Your task to perform on an android device: Clear the shopping cart on ebay.com. Add "razer blackwidow" to the cart on ebay.com, then select checkout. Image 0: 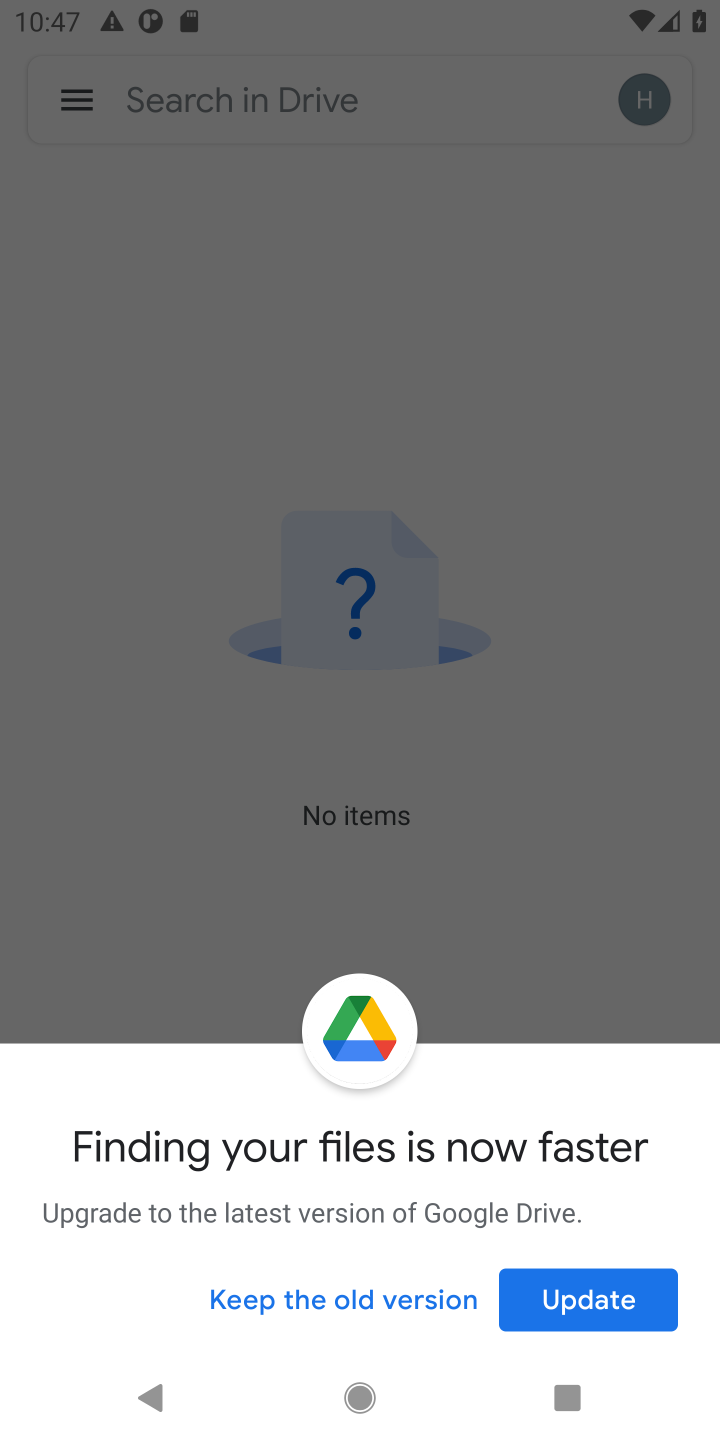
Step 0: press home button
Your task to perform on an android device: Clear the shopping cart on ebay.com. Add "razer blackwidow" to the cart on ebay.com, then select checkout. Image 1: 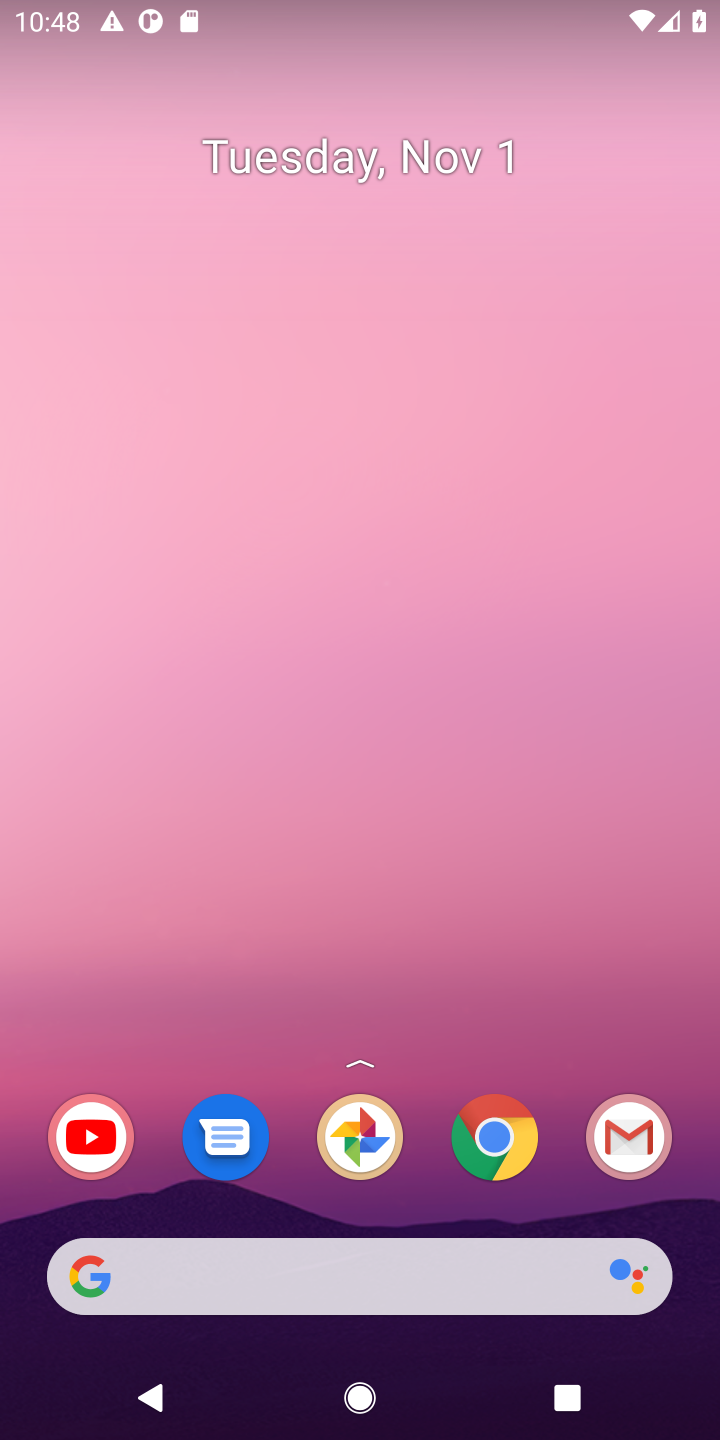
Step 1: click (338, 1287)
Your task to perform on an android device: Clear the shopping cart on ebay.com. Add "razer blackwidow" to the cart on ebay.com, then select checkout. Image 2: 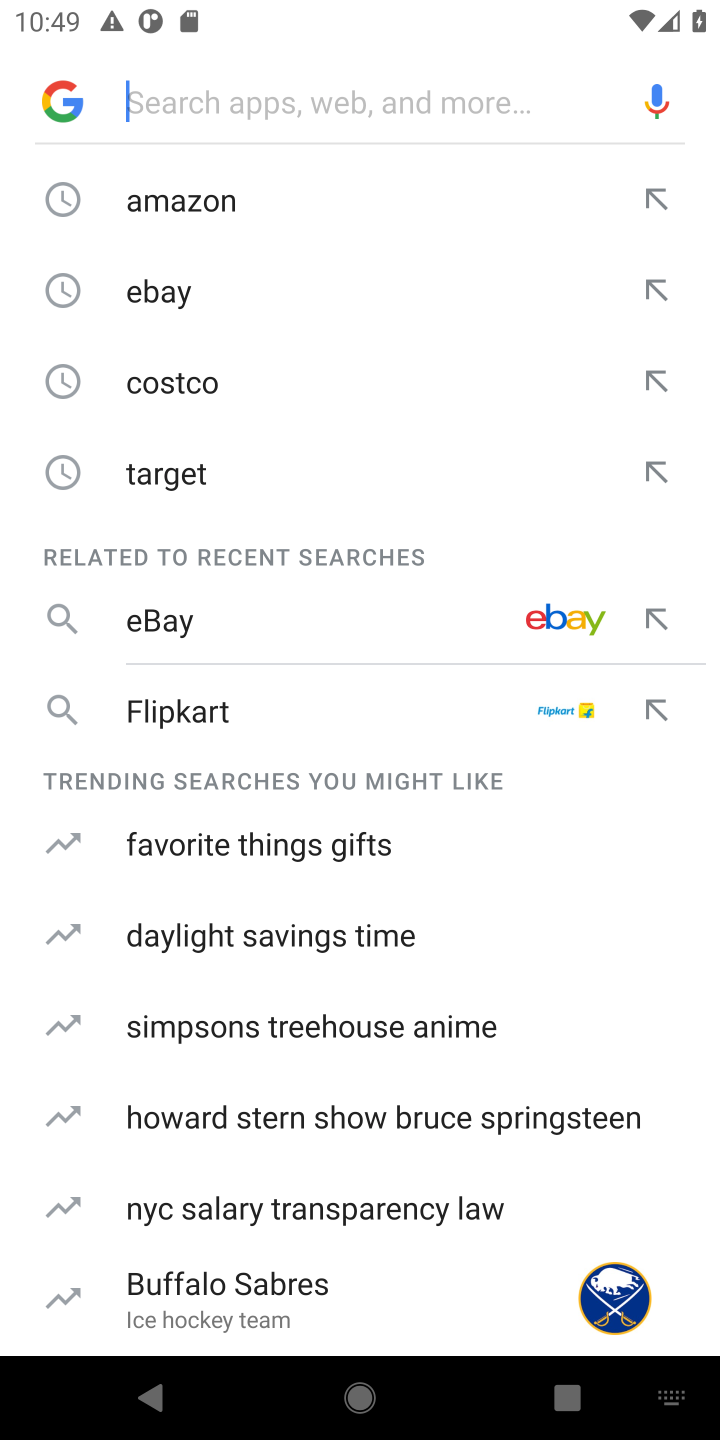
Step 2: click (251, 280)
Your task to perform on an android device: Clear the shopping cart on ebay.com. Add "razer blackwidow" to the cart on ebay.com, then select checkout. Image 3: 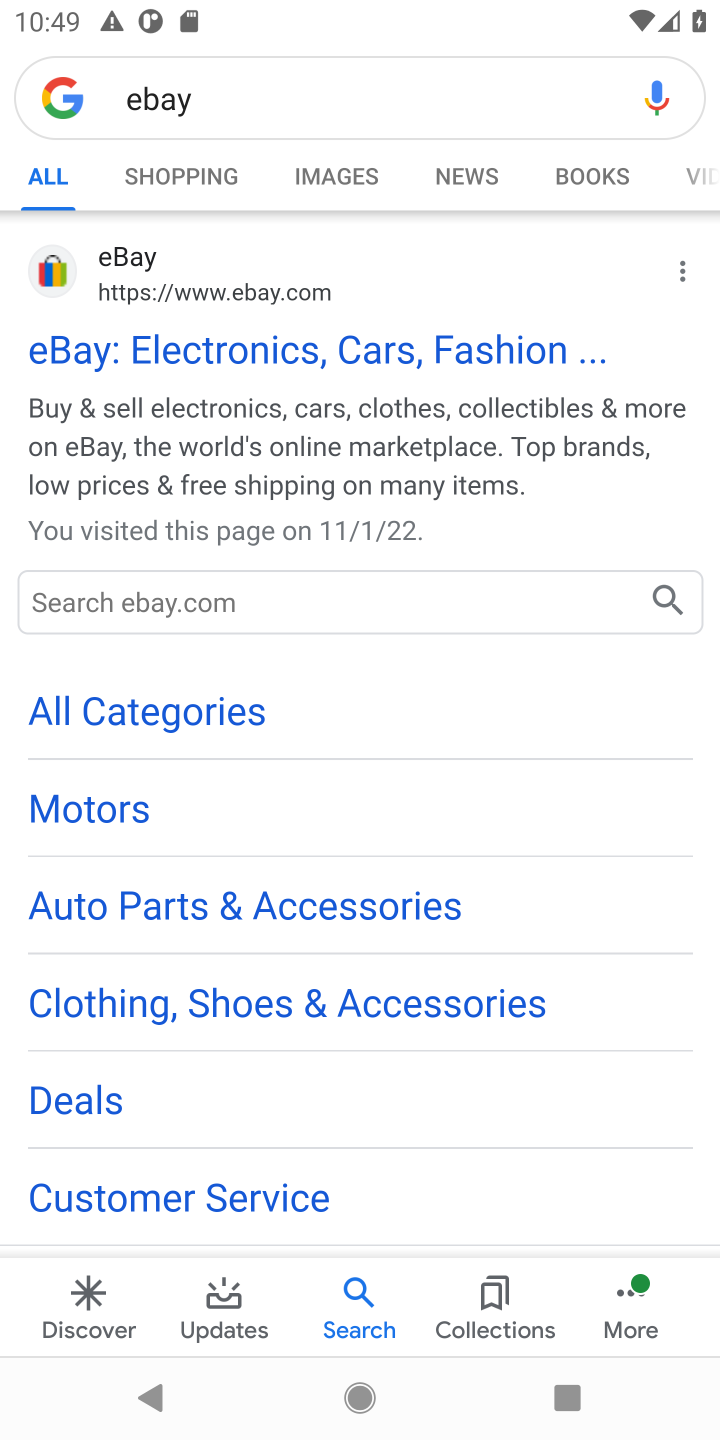
Step 3: click (152, 288)
Your task to perform on an android device: Clear the shopping cart on ebay.com. Add "razer blackwidow" to the cart on ebay.com, then select checkout. Image 4: 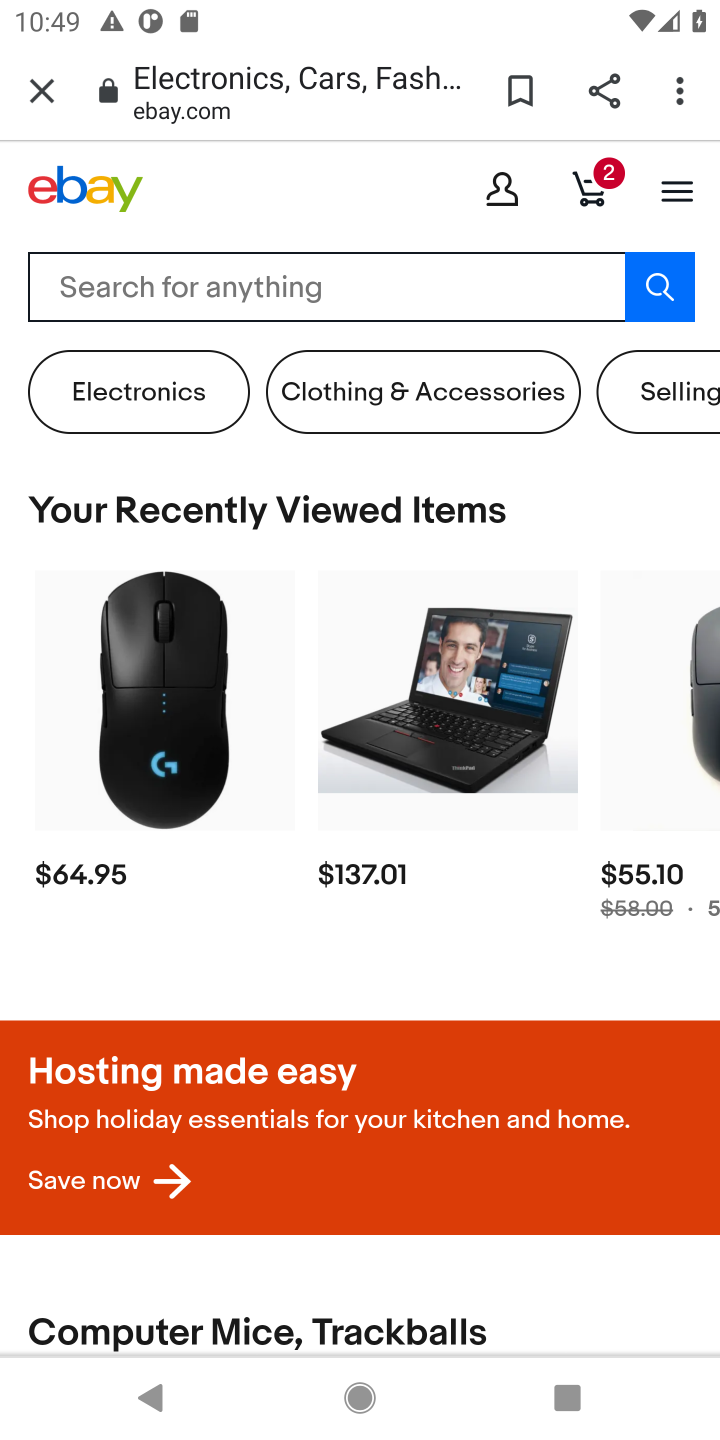
Step 4: click (274, 284)
Your task to perform on an android device: Clear the shopping cart on ebay.com. Add "razer blackwidow" to the cart on ebay.com, then select checkout. Image 5: 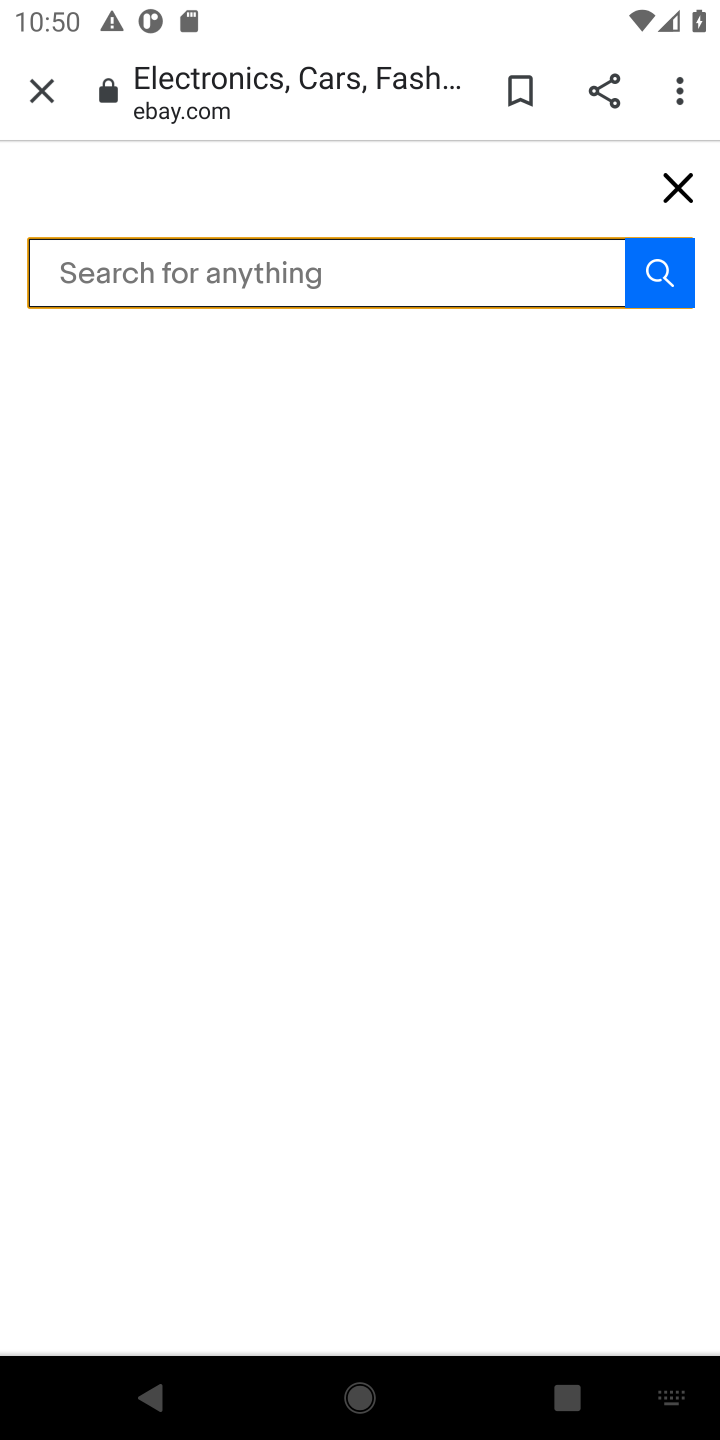
Step 5: type "razer blackwidow"
Your task to perform on an android device: Clear the shopping cart on ebay.com. Add "razer blackwidow" to the cart on ebay.com, then select checkout. Image 6: 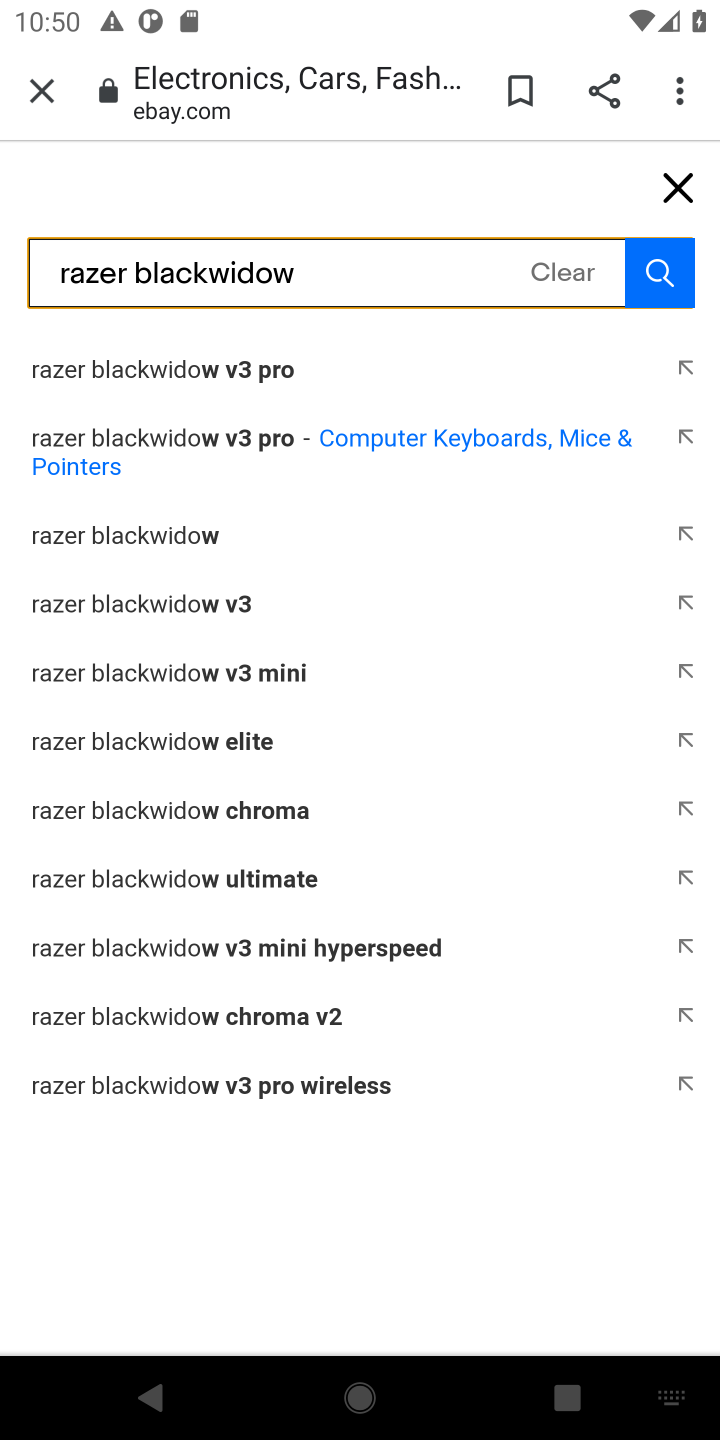
Step 6: type "razer blackwidow"
Your task to perform on an android device: Clear the shopping cart on ebay.com. Add "razer blackwidow" to the cart on ebay.com, then select checkout. Image 7: 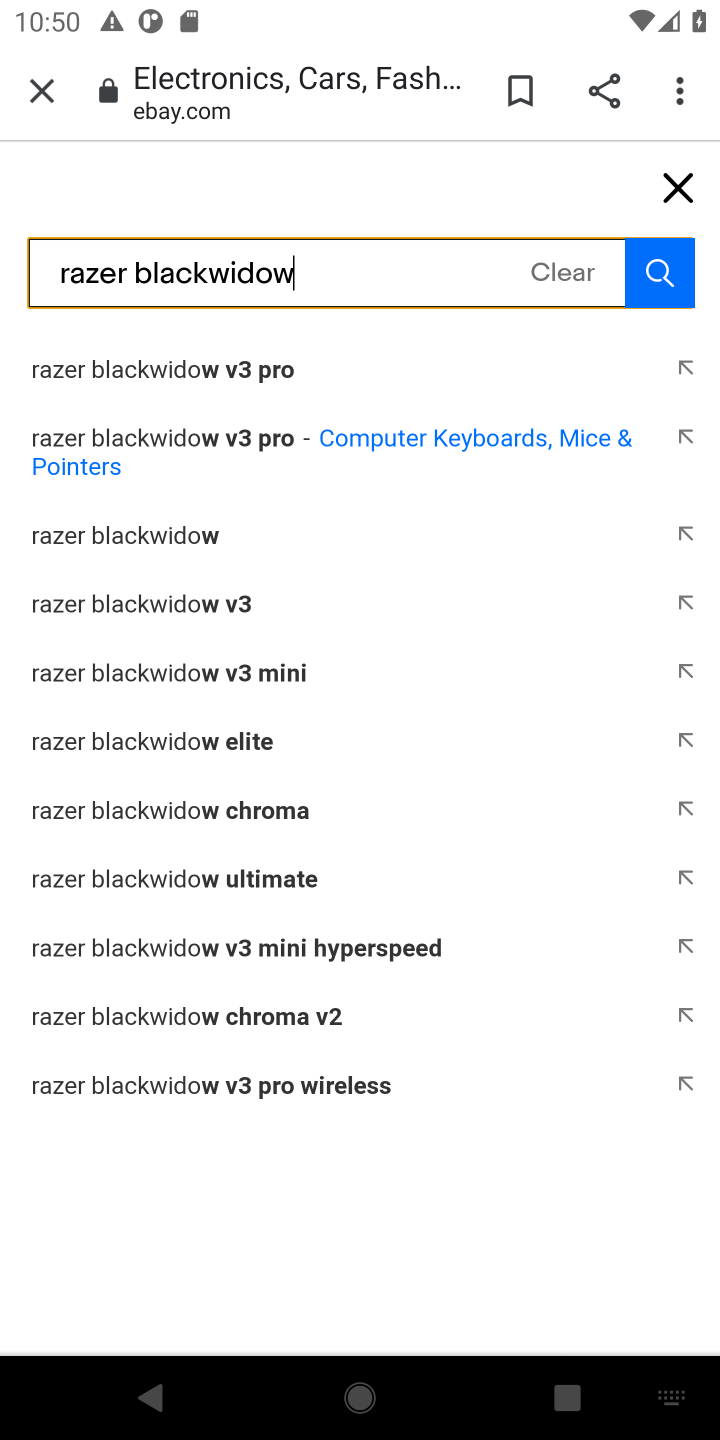
Step 7: click (86, 539)
Your task to perform on an android device: Clear the shopping cart on ebay.com. Add "razer blackwidow" to the cart on ebay.com, then select checkout. Image 8: 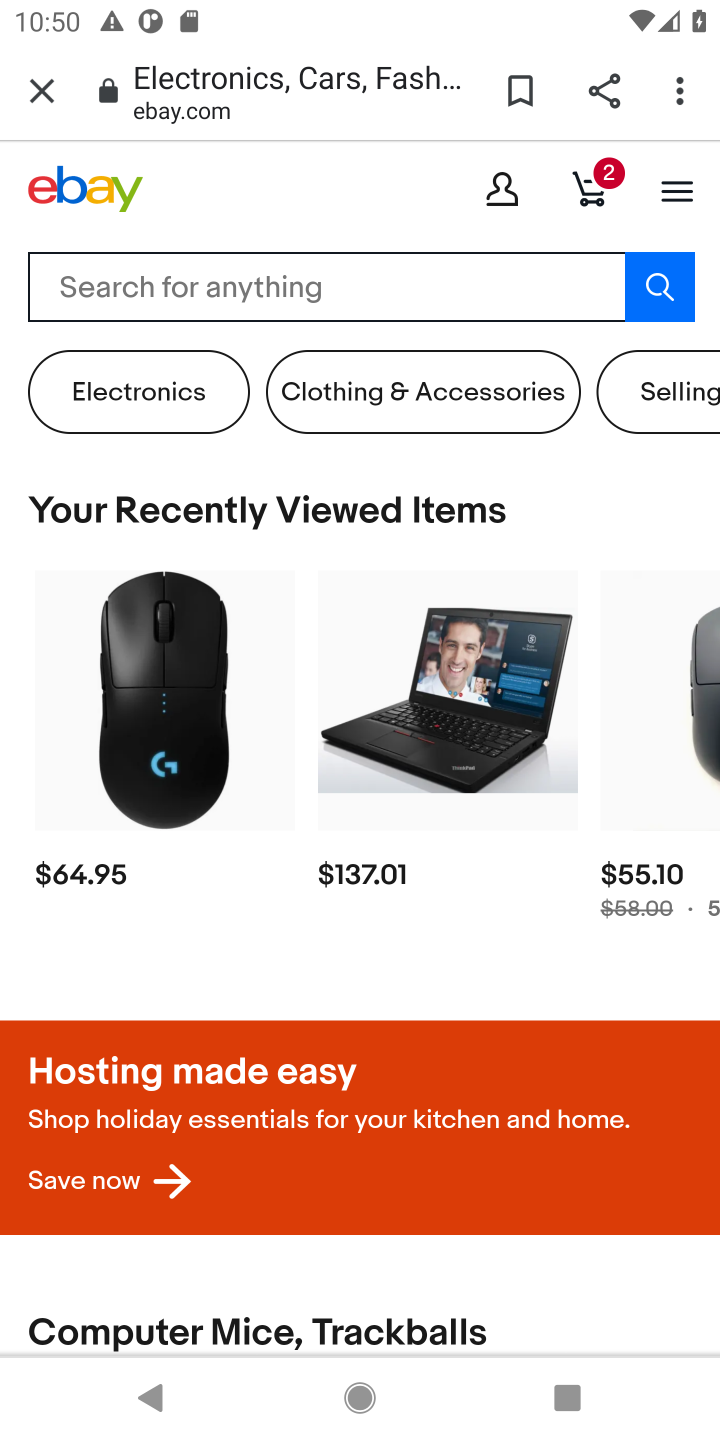
Step 8: click (86, 539)
Your task to perform on an android device: Clear the shopping cart on ebay.com. Add "razer blackwidow" to the cart on ebay.com, then select checkout. Image 9: 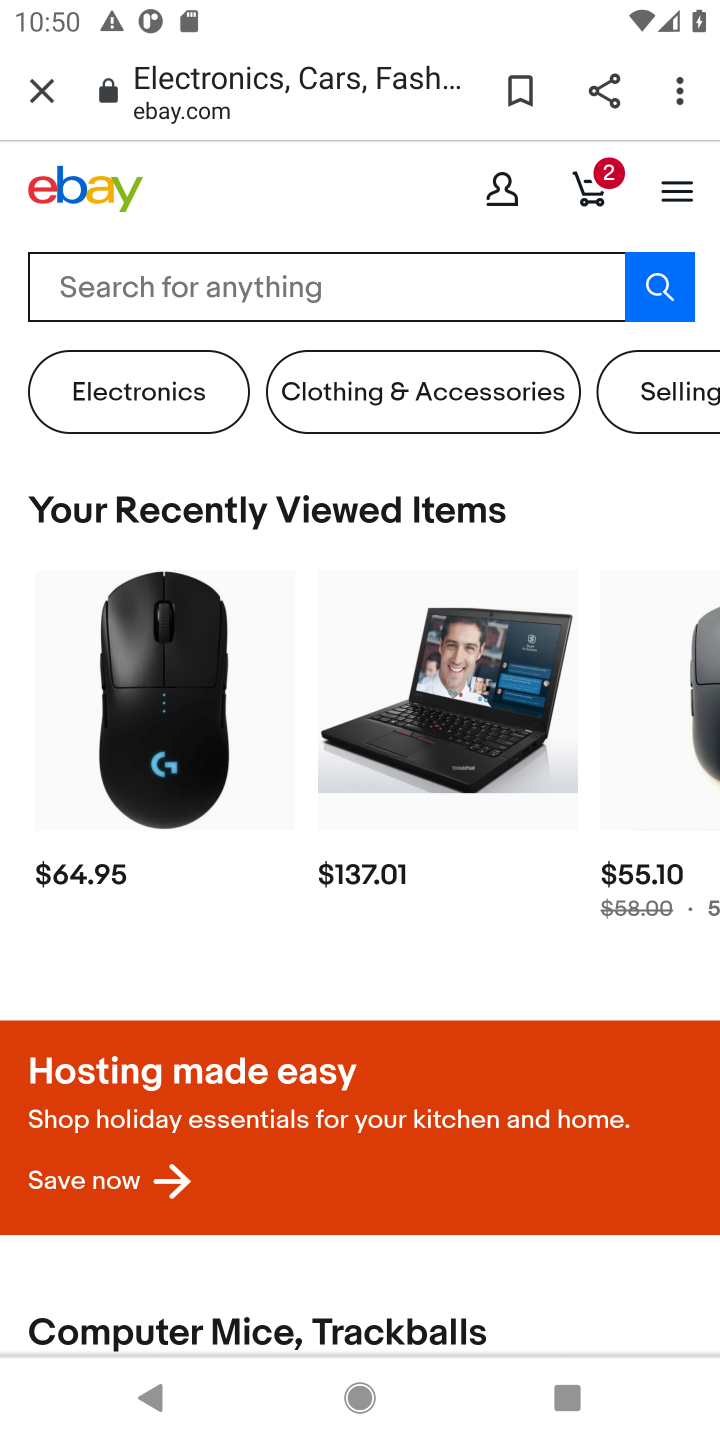
Step 9: click (128, 793)
Your task to perform on an android device: Clear the shopping cart on ebay.com. Add "razer blackwidow" to the cart on ebay.com, then select checkout. Image 10: 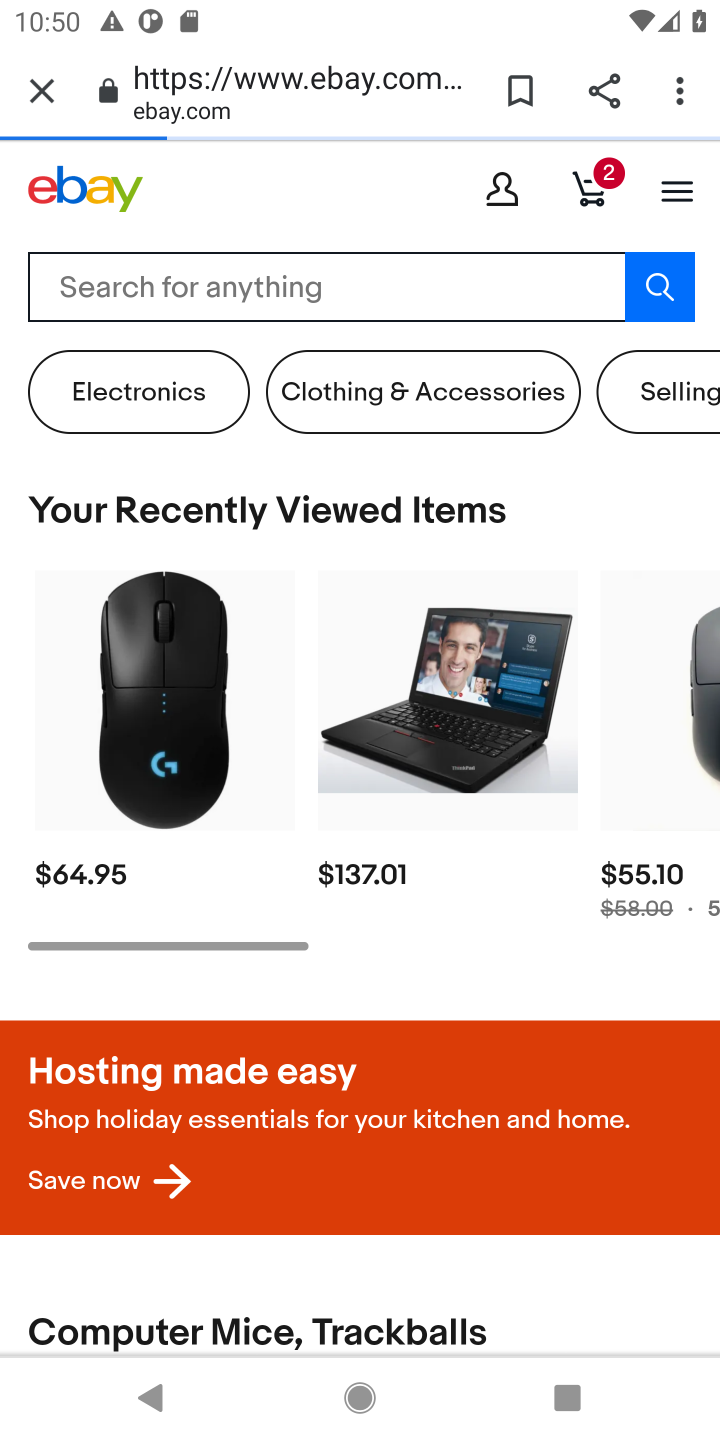
Step 10: click (163, 747)
Your task to perform on an android device: Clear the shopping cart on ebay.com. Add "razer blackwidow" to the cart on ebay.com, then select checkout. Image 11: 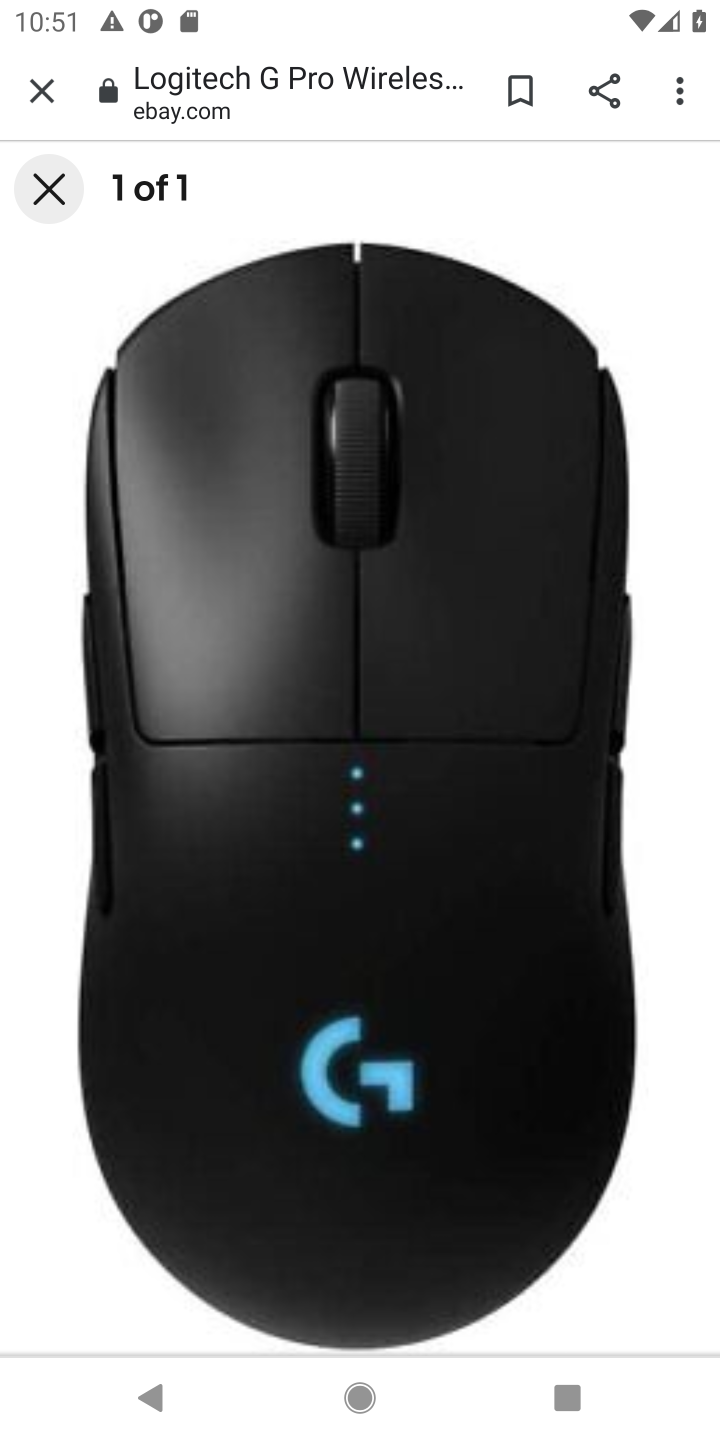
Step 11: drag from (304, 1080) to (361, 579)
Your task to perform on an android device: Clear the shopping cart on ebay.com. Add "razer blackwidow" to the cart on ebay.com, then select checkout. Image 12: 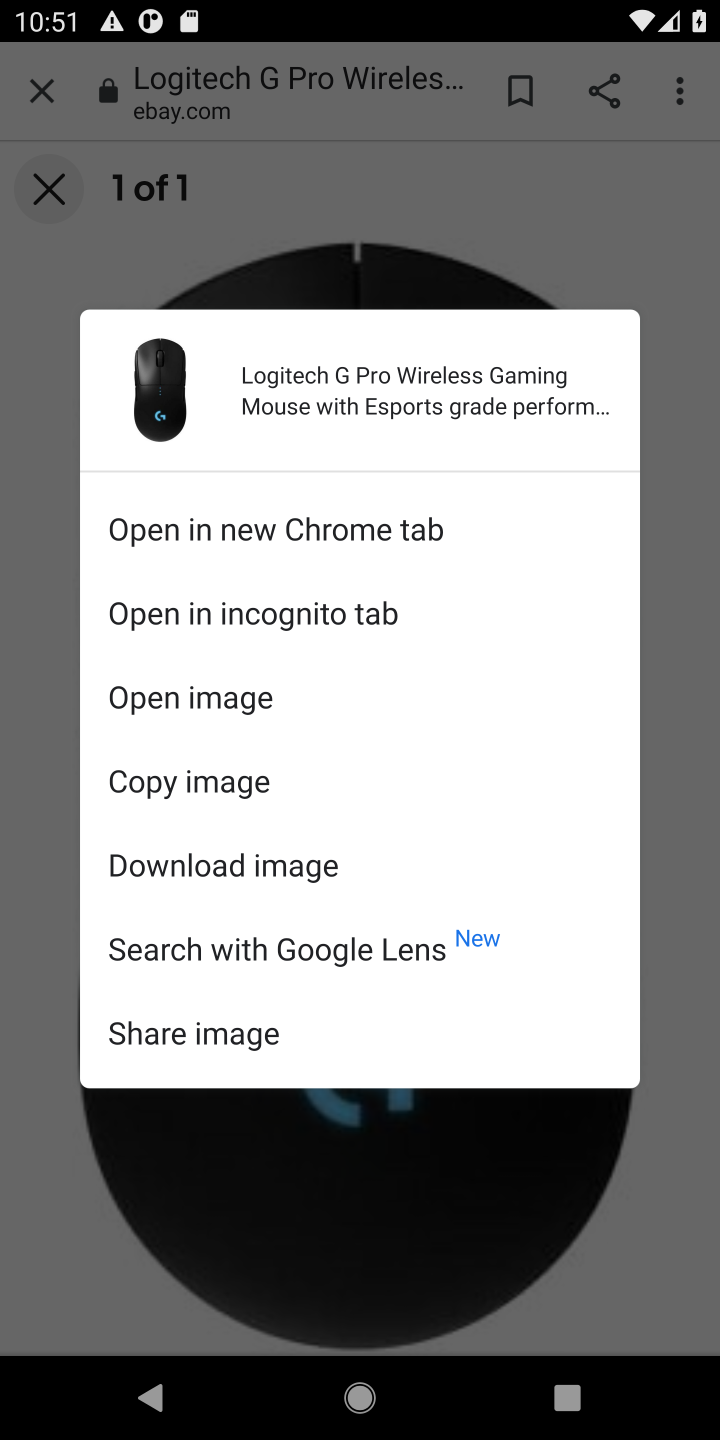
Step 12: press back button
Your task to perform on an android device: Clear the shopping cart on ebay.com. Add "razer blackwidow" to the cart on ebay.com, then select checkout. Image 13: 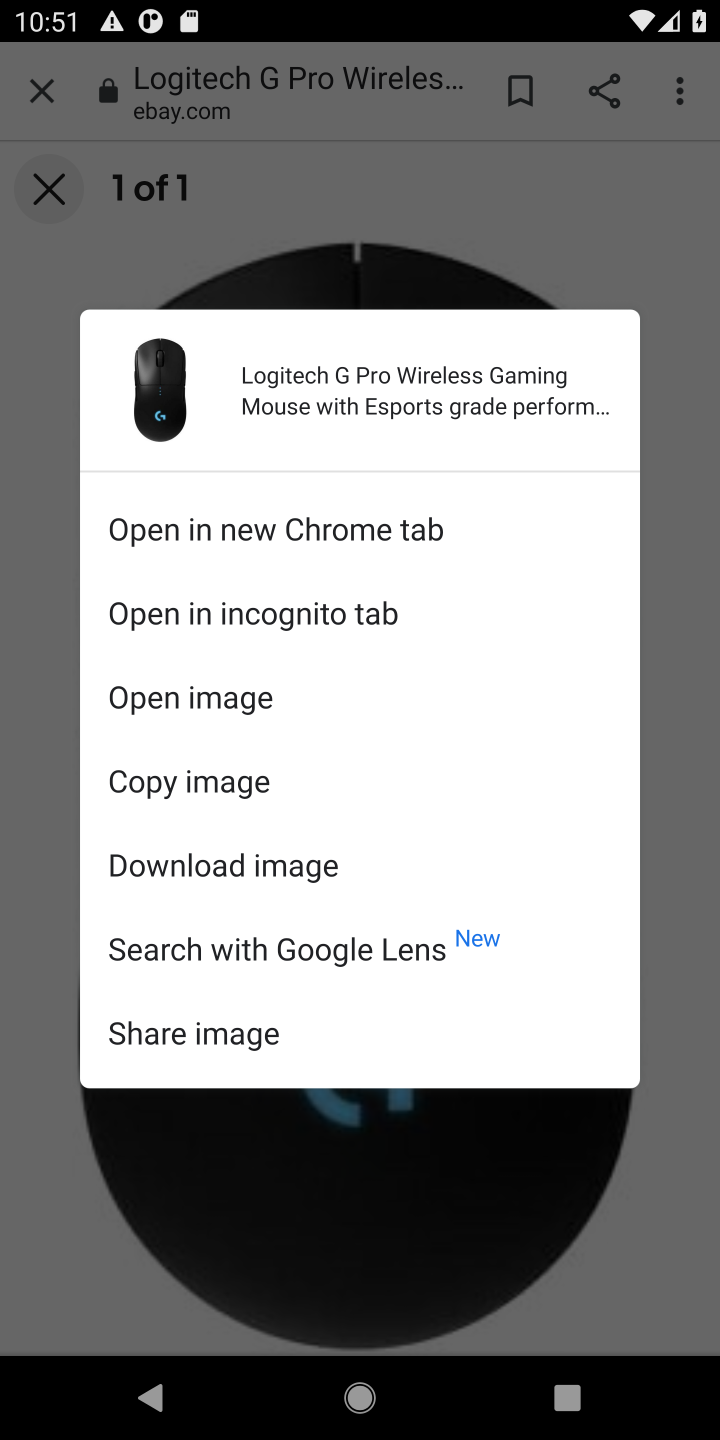
Step 13: click (72, 200)
Your task to perform on an android device: Clear the shopping cart on ebay.com. Add "razer blackwidow" to the cart on ebay.com, then select checkout. Image 14: 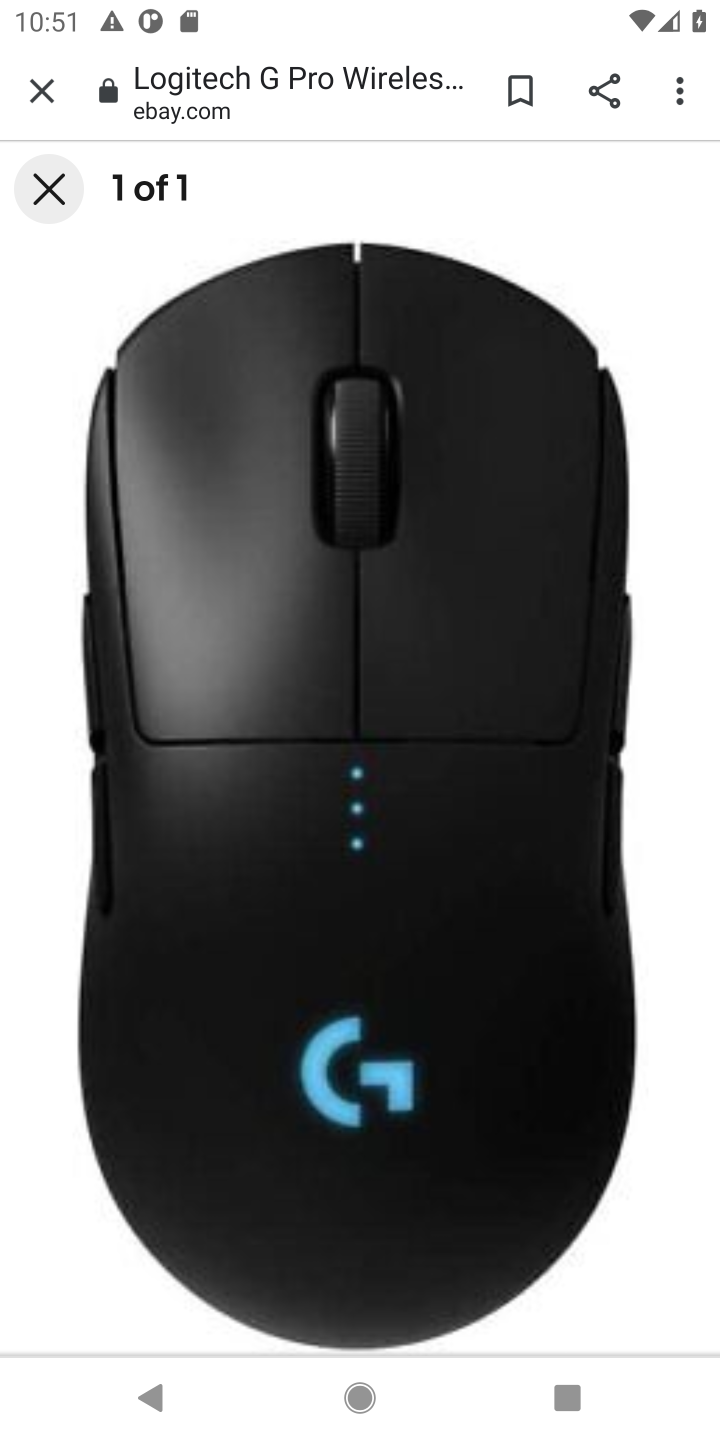
Step 14: click (32, 187)
Your task to perform on an android device: Clear the shopping cart on ebay.com. Add "razer blackwidow" to the cart on ebay.com, then select checkout. Image 15: 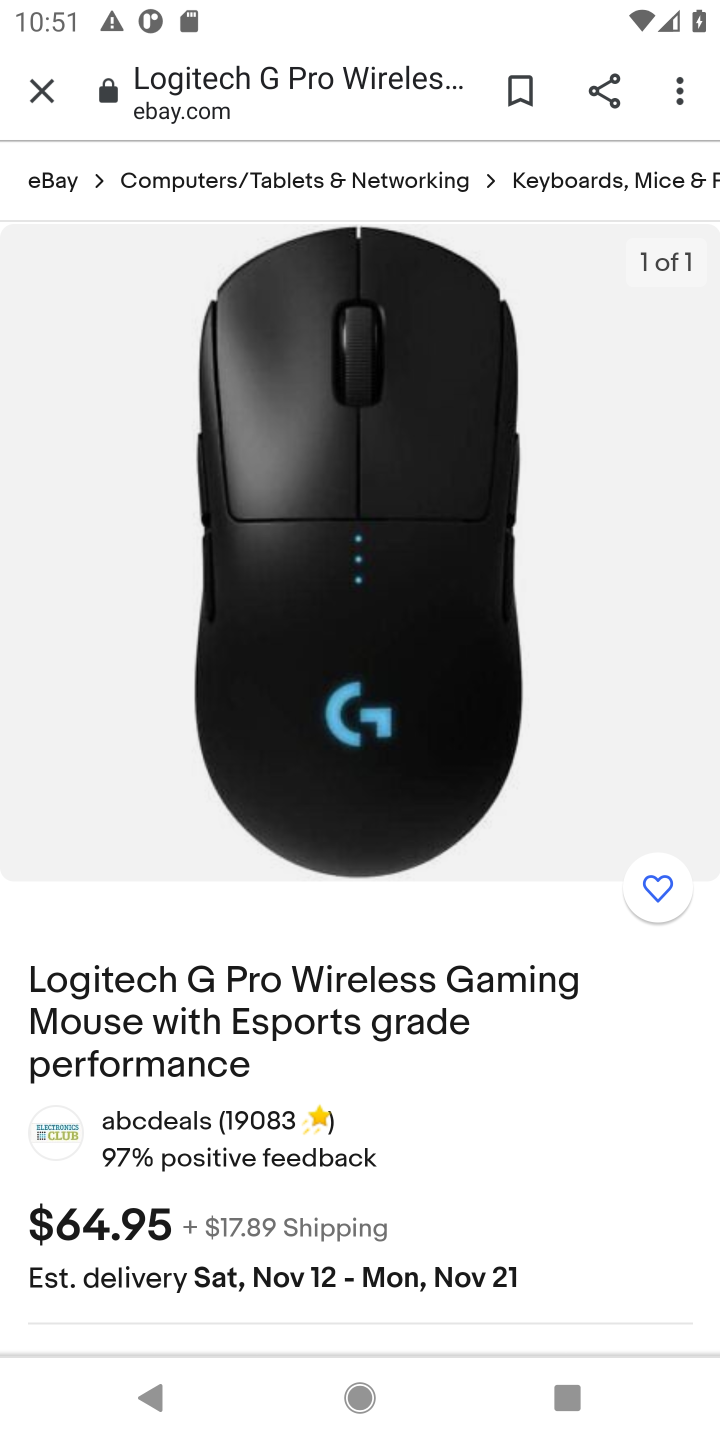
Step 15: drag from (399, 1138) to (387, 272)
Your task to perform on an android device: Clear the shopping cart on ebay.com. Add "razer blackwidow" to the cart on ebay.com, then select checkout. Image 16: 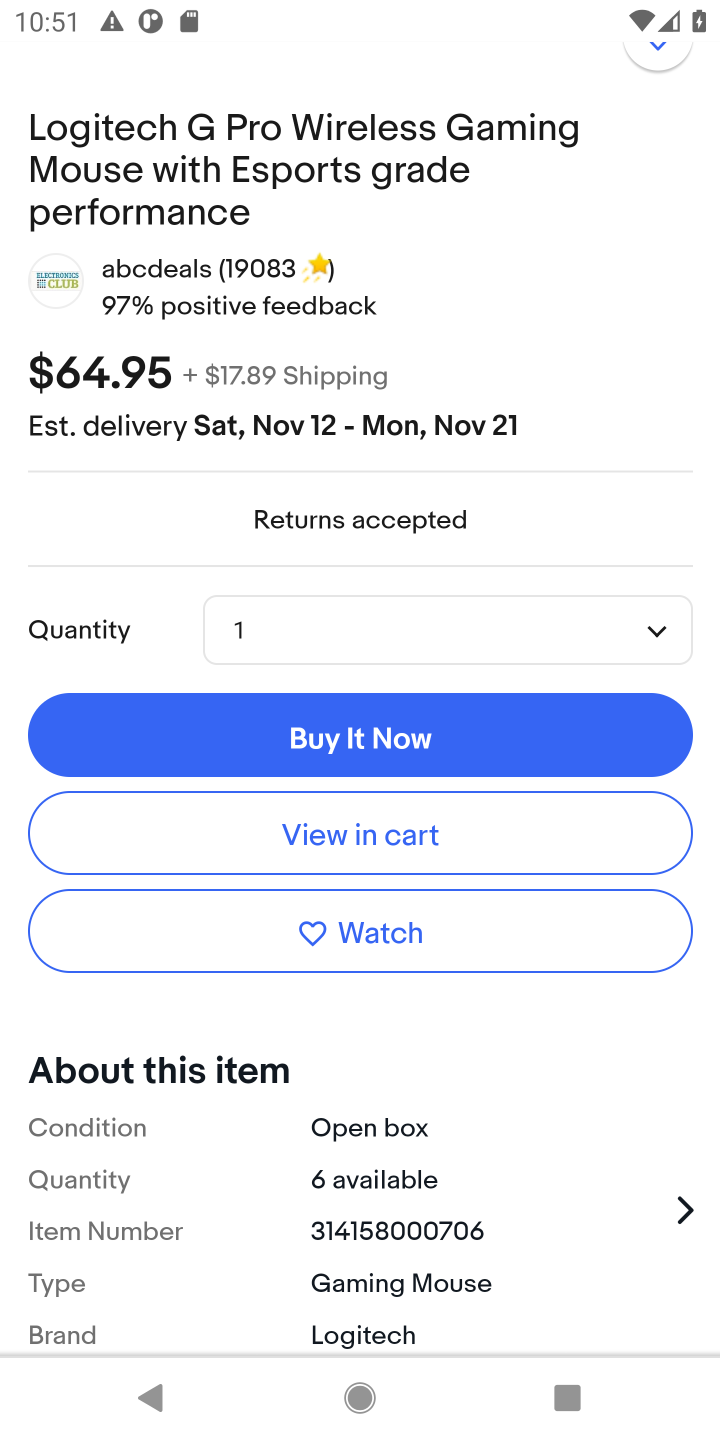
Step 16: click (365, 839)
Your task to perform on an android device: Clear the shopping cart on ebay.com. Add "razer blackwidow" to the cart on ebay.com, then select checkout. Image 17: 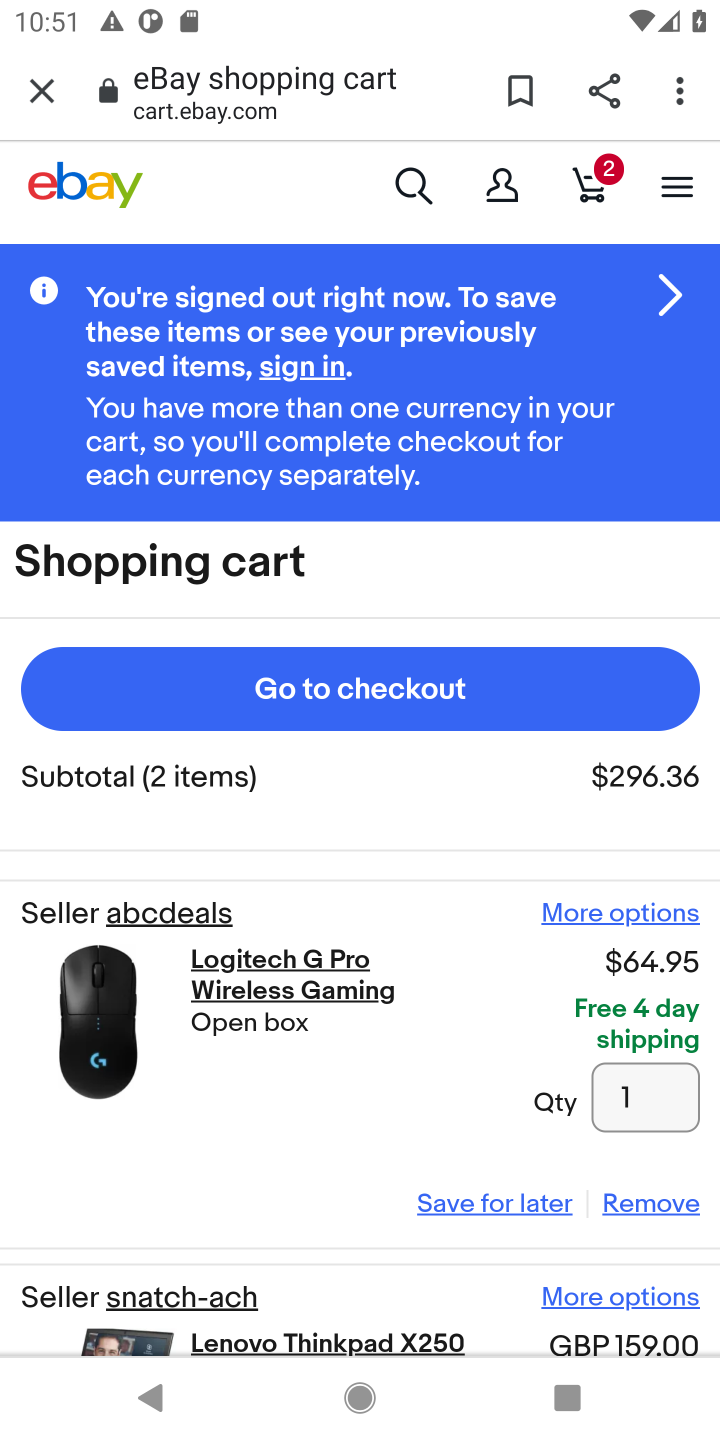
Step 17: click (359, 679)
Your task to perform on an android device: Clear the shopping cart on ebay.com. Add "razer blackwidow" to the cart on ebay.com, then select checkout. Image 18: 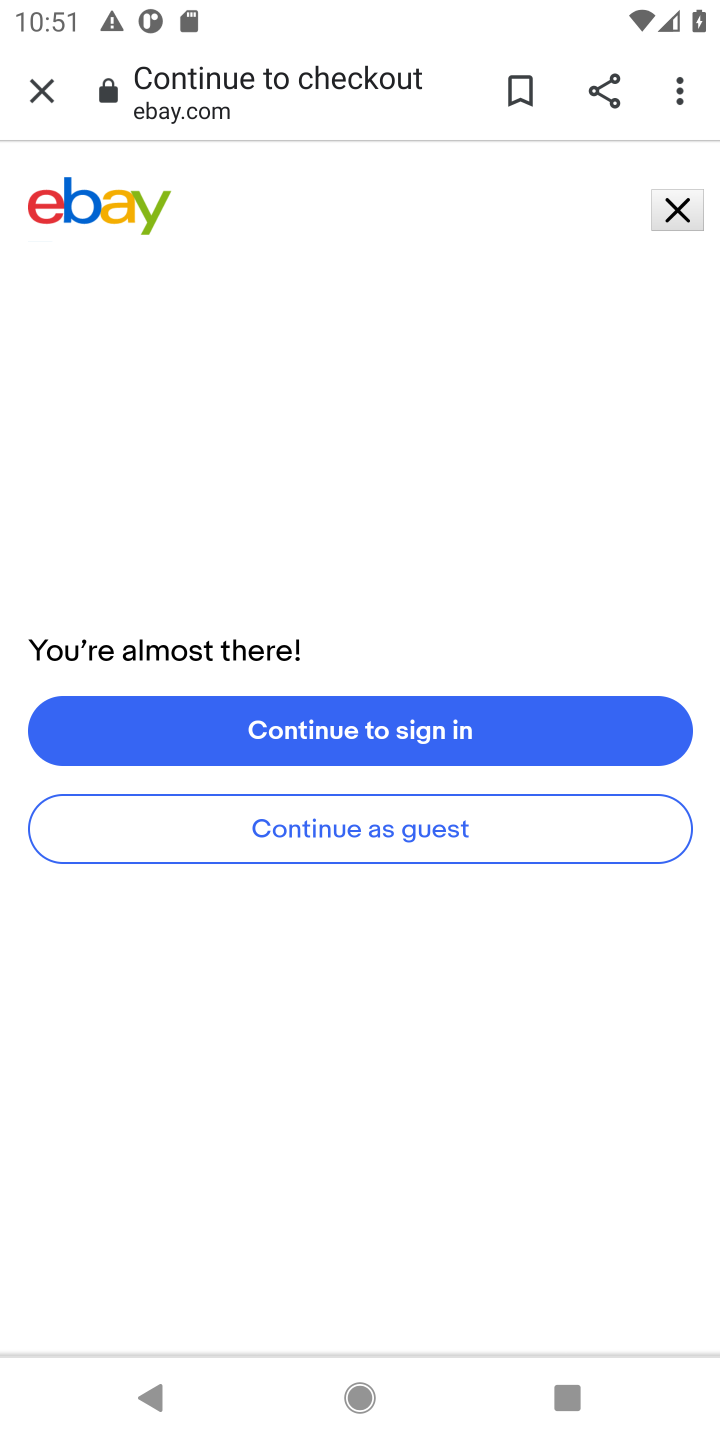
Step 18: task complete